Your task to perform on an android device: Go to accessibility settings Image 0: 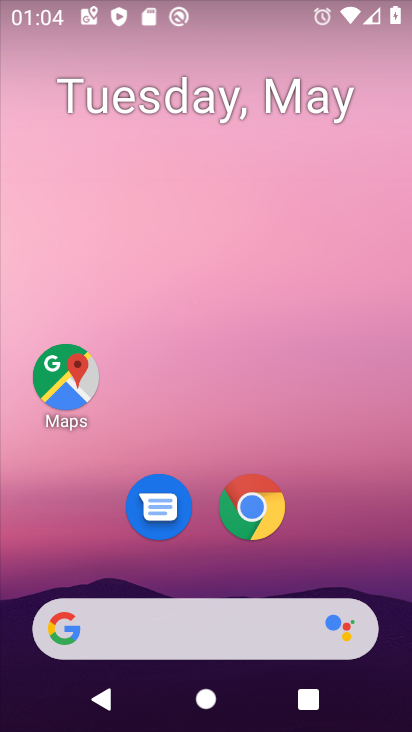
Step 0: drag from (170, 583) to (213, 311)
Your task to perform on an android device: Go to accessibility settings Image 1: 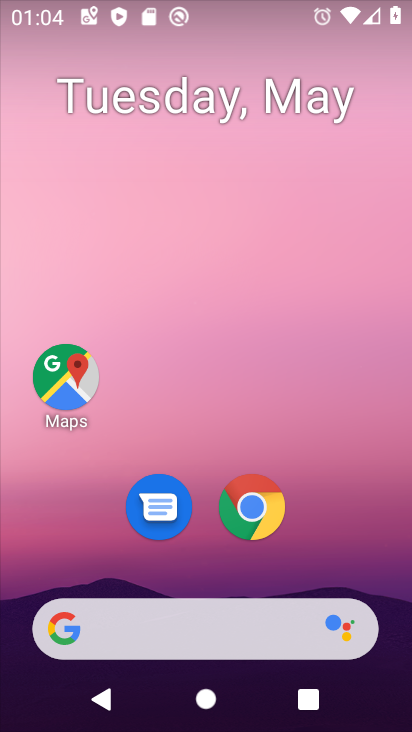
Step 1: drag from (265, 587) to (288, 235)
Your task to perform on an android device: Go to accessibility settings Image 2: 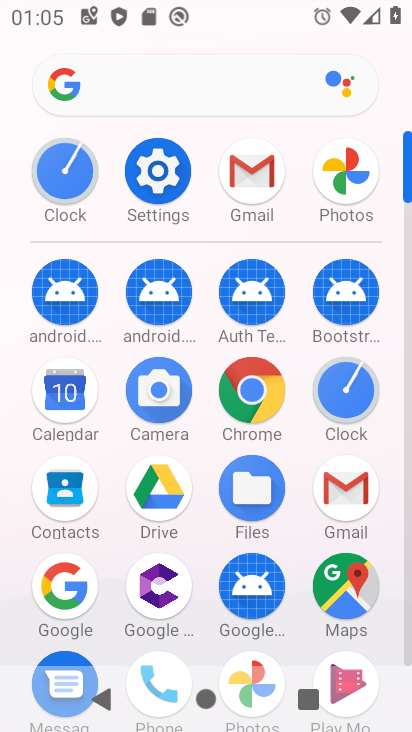
Step 2: click (156, 200)
Your task to perform on an android device: Go to accessibility settings Image 3: 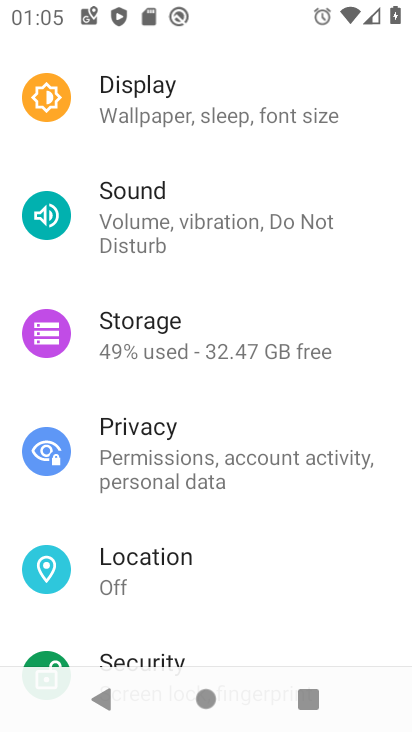
Step 3: drag from (253, 581) to (219, 225)
Your task to perform on an android device: Go to accessibility settings Image 4: 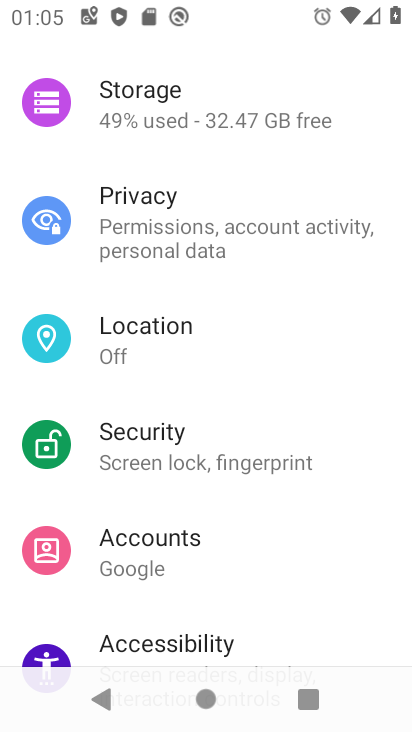
Step 4: click (161, 641)
Your task to perform on an android device: Go to accessibility settings Image 5: 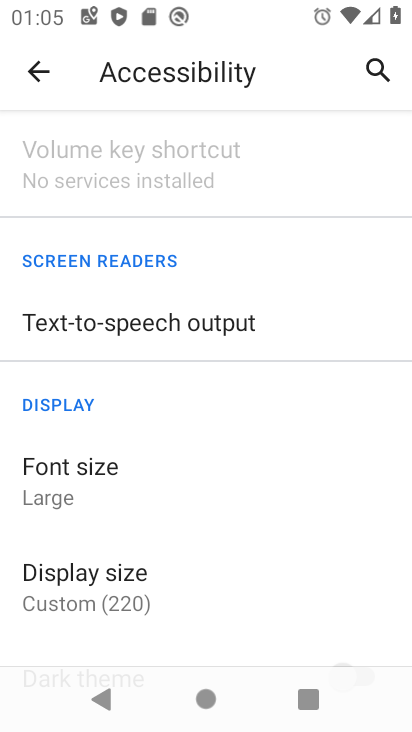
Step 5: task complete